Your task to perform on an android device: star an email in the gmail app Image 0: 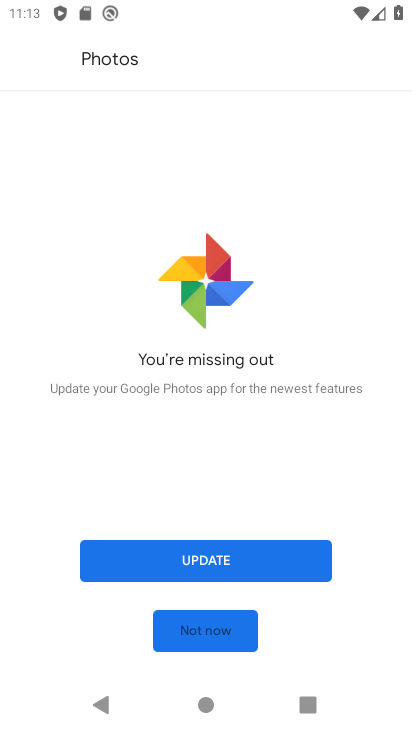
Step 0: press home button
Your task to perform on an android device: star an email in the gmail app Image 1: 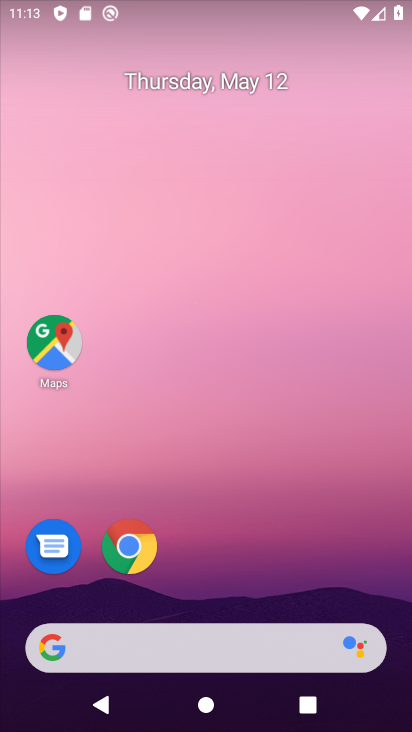
Step 1: drag from (220, 725) to (240, 89)
Your task to perform on an android device: star an email in the gmail app Image 2: 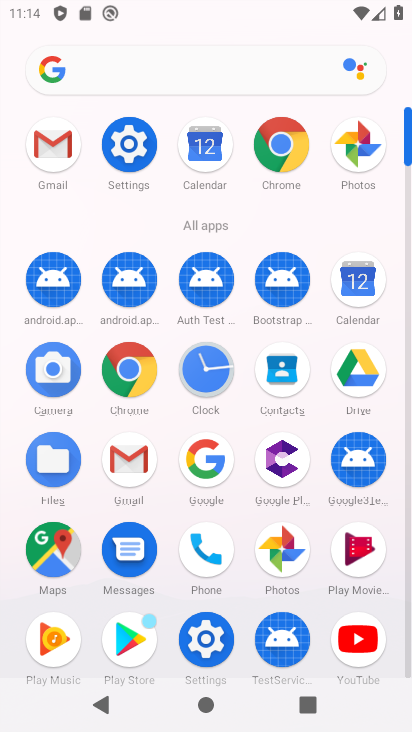
Step 2: click (130, 462)
Your task to perform on an android device: star an email in the gmail app Image 3: 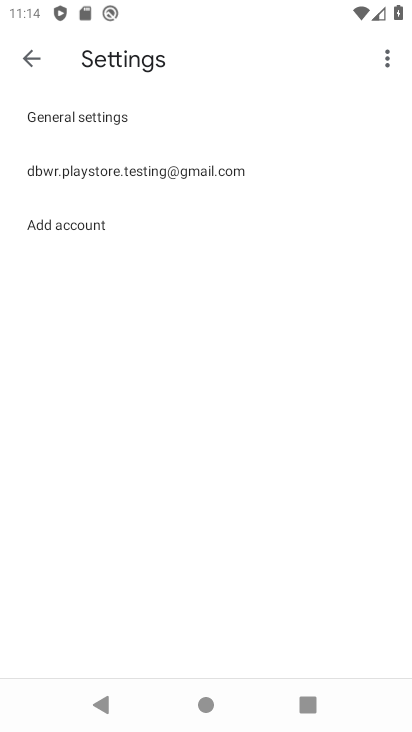
Step 3: click (31, 58)
Your task to perform on an android device: star an email in the gmail app Image 4: 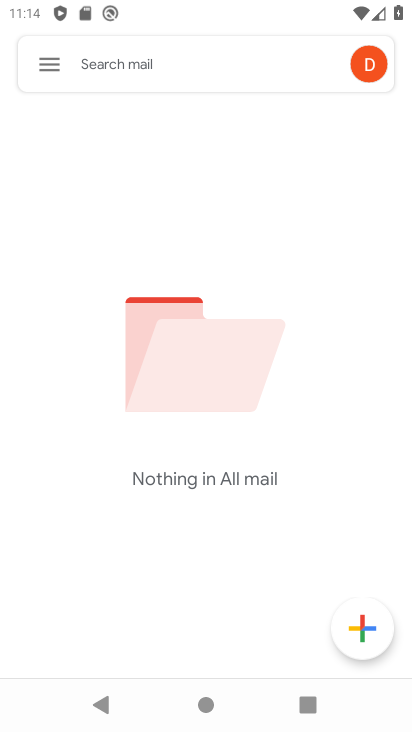
Step 4: task complete